Your task to perform on an android device: Show me recent news Image 0: 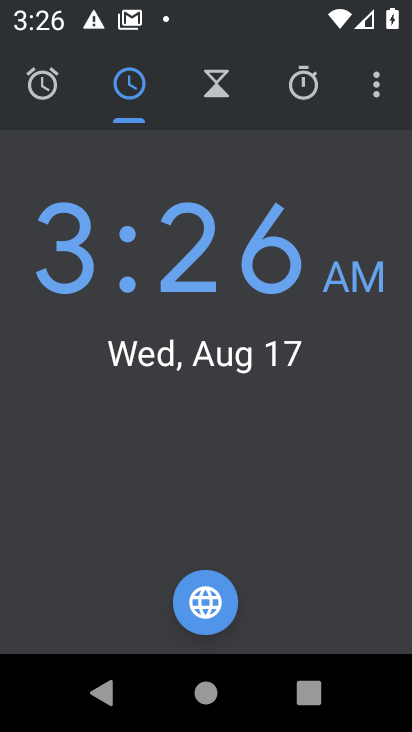
Step 0: drag from (15, 731) to (222, 651)
Your task to perform on an android device: Show me recent news Image 1: 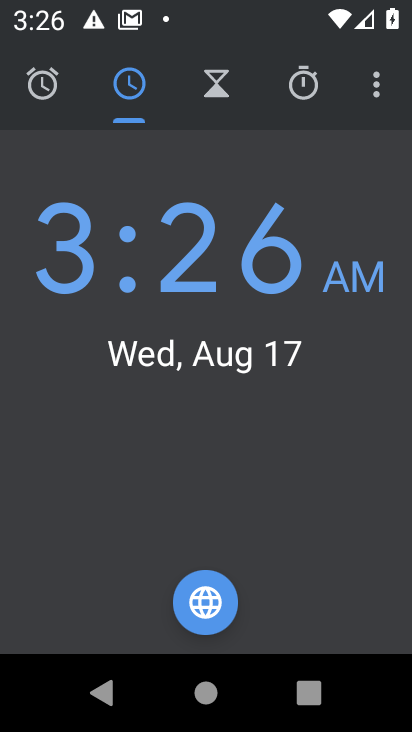
Step 1: press home button
Your task to perform on an android device: Show me recent news Image 2: 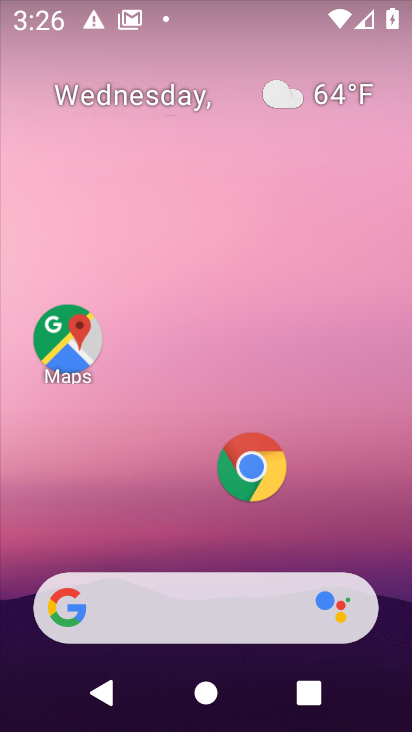
Step 2: click (183, 600)
Your task to perform on an android device: Show me recent news Image 3: 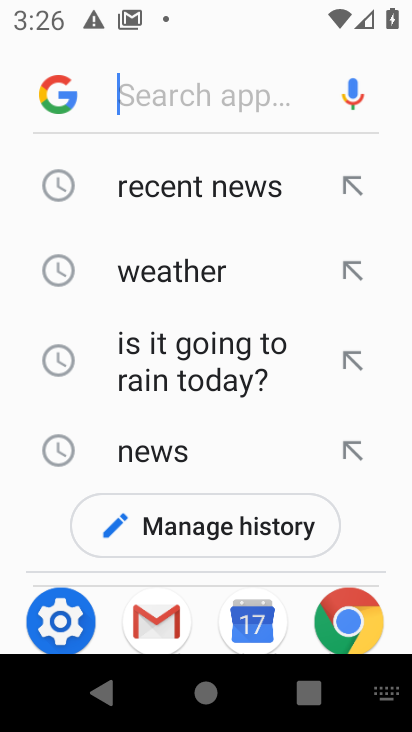
Step 3: type "Show me recent news"
Your task to perform on an android device: Show me recent news Image 4: 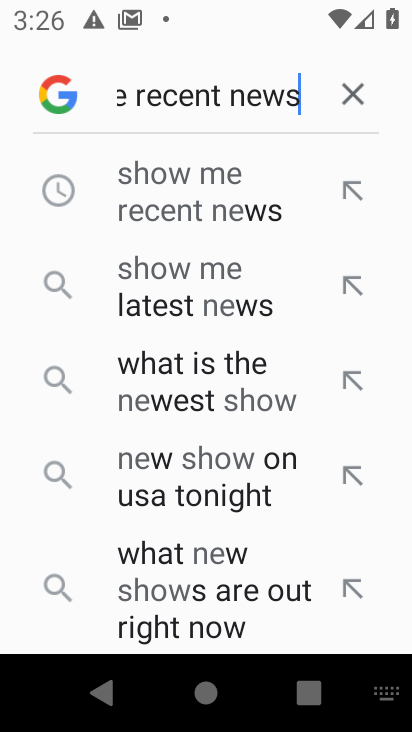
Step 4: type ""
Your task to perform on an android device: Show me recent news Image 5: 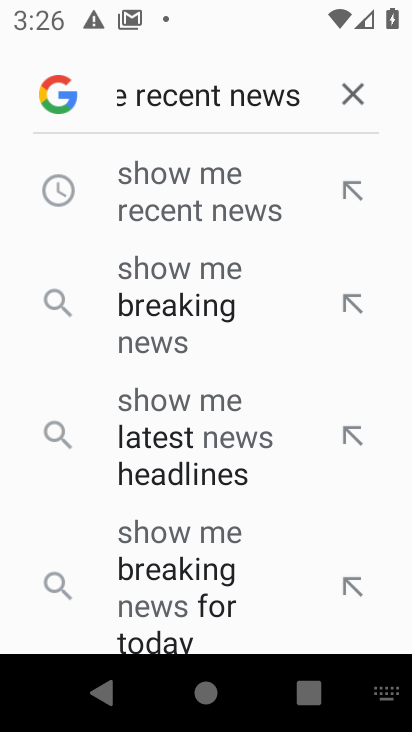
Step 5: press enter
Your task to perform on an android device: Show me recent news Image 6: 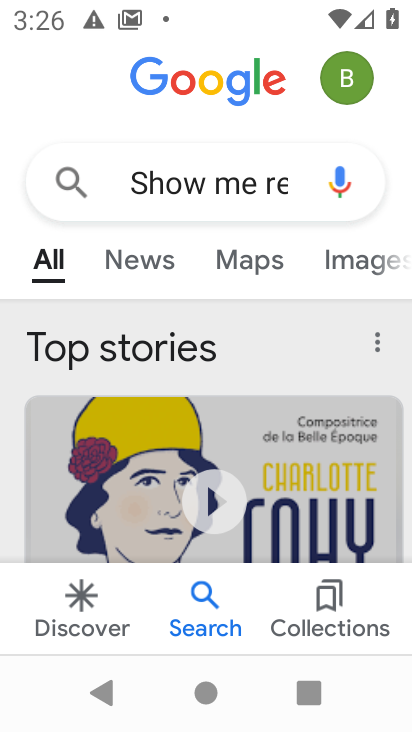
Step 6: press enter
Your task to perform on an android device: Show me recent news Image 7: 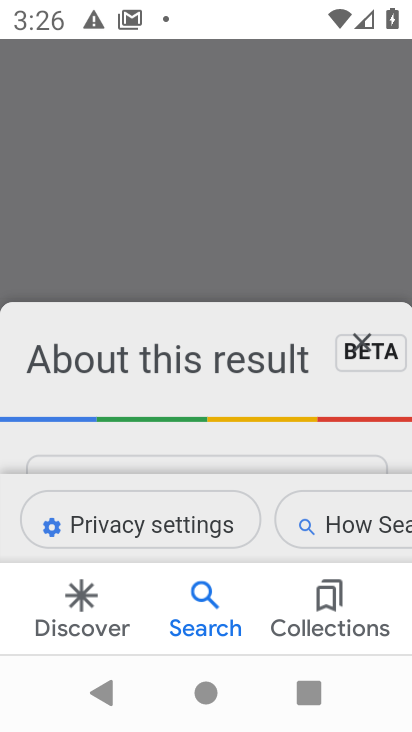
Step 7: task complete